Your task to perform on an android device: visit the assistant section in the google photos Image 0: 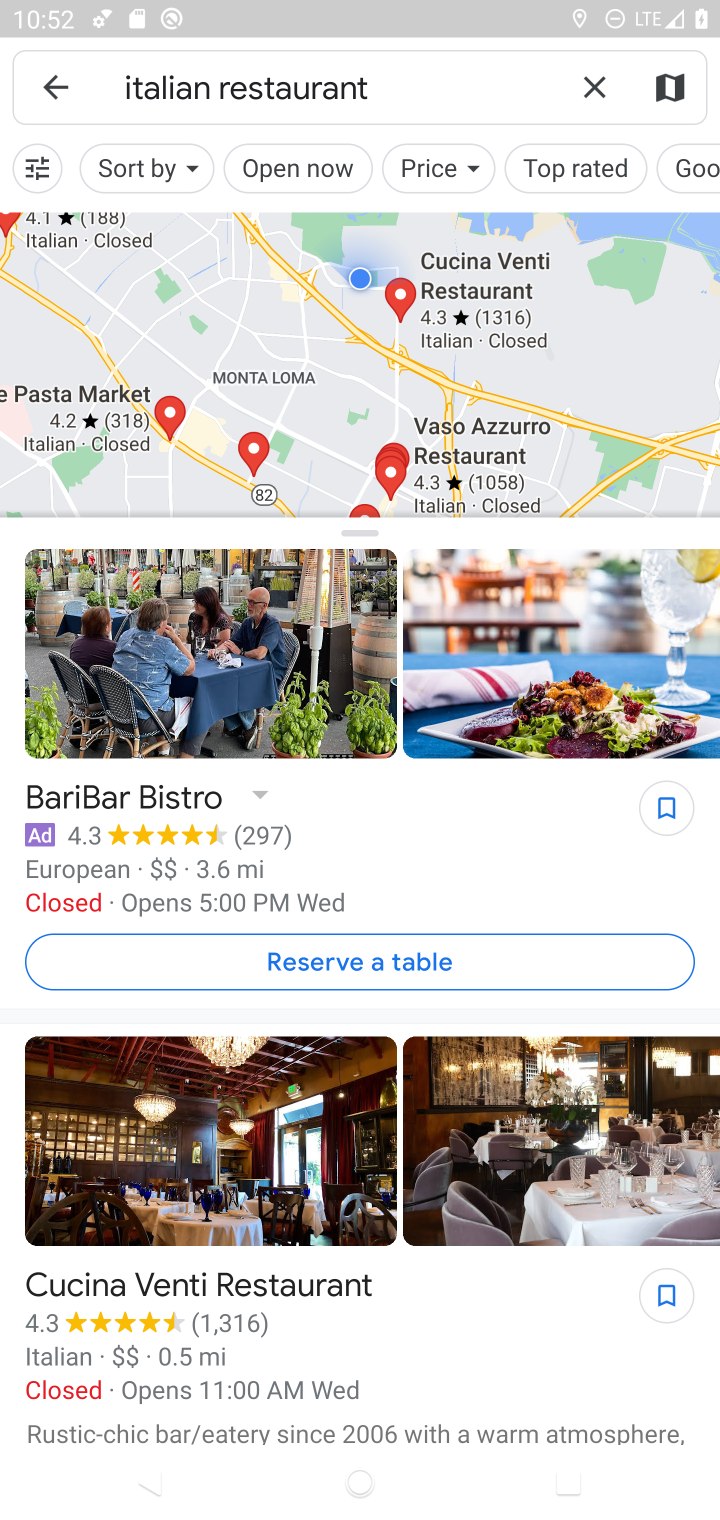
Step 0: press home button
Your task to perform on an android device: visit the assistant section in the google photos Image 1: 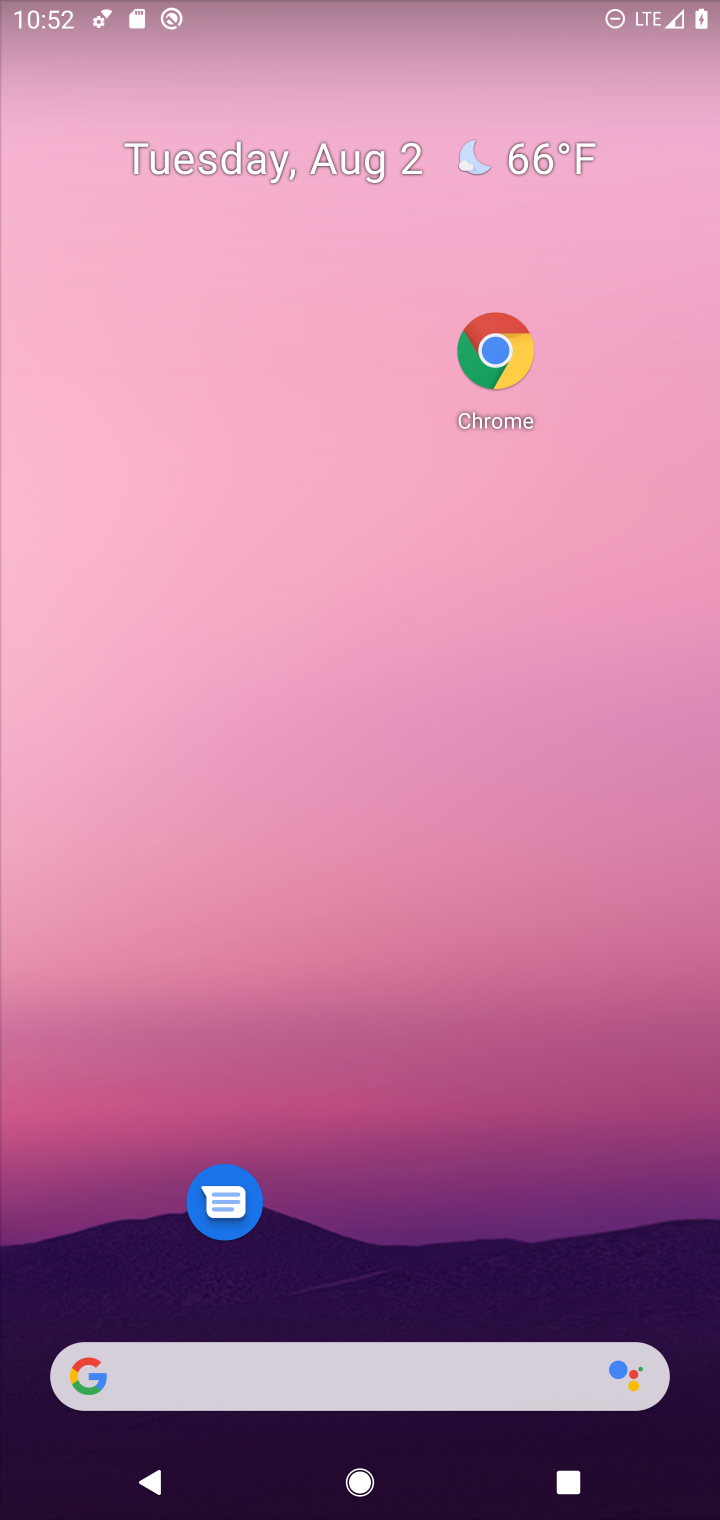
Step 1: drag from (455, 1252) to (296, 126)
Your task to perform on an android device: visit the assistant section in the google photos Image 2: 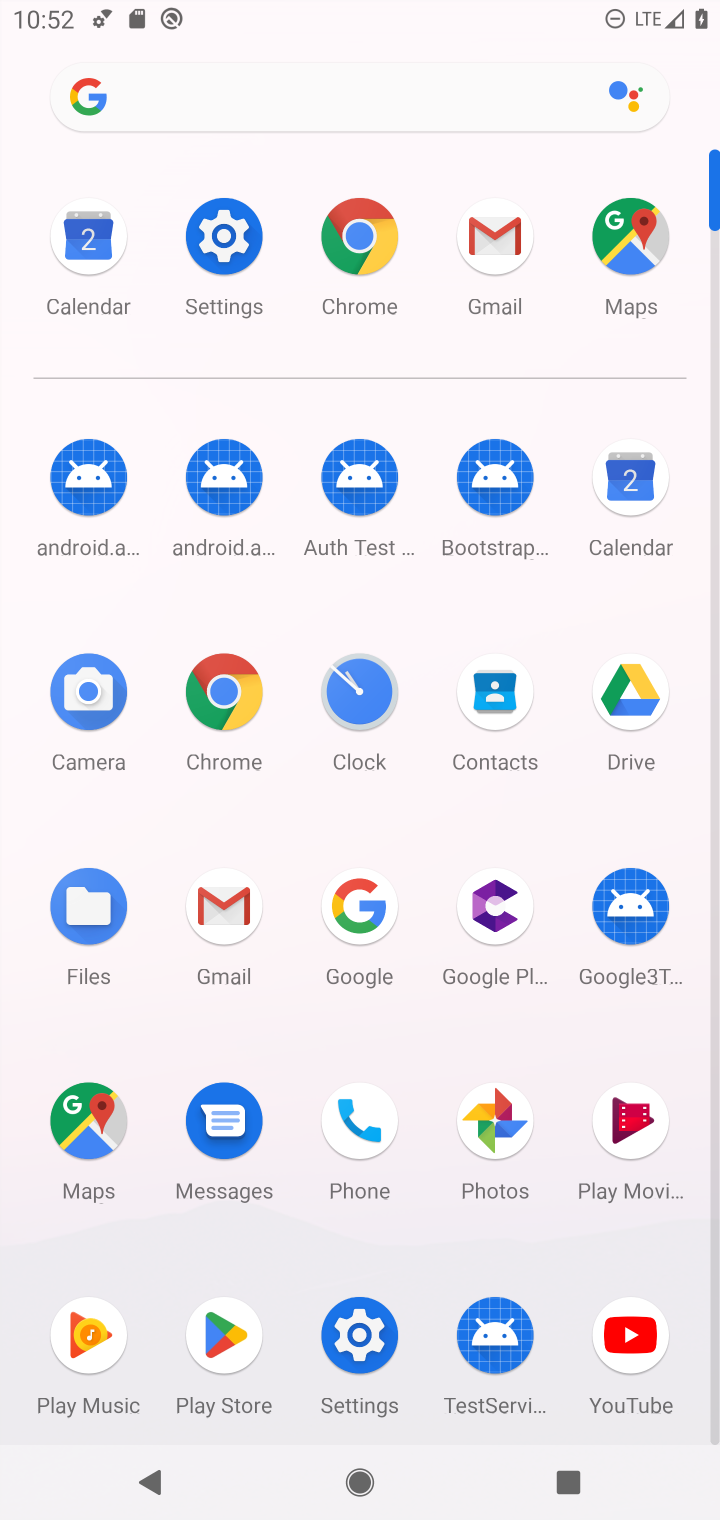
Step 2: click (508, 1126)
Your task to perform on an android device: visit the assistant section in the google photos Image 3: 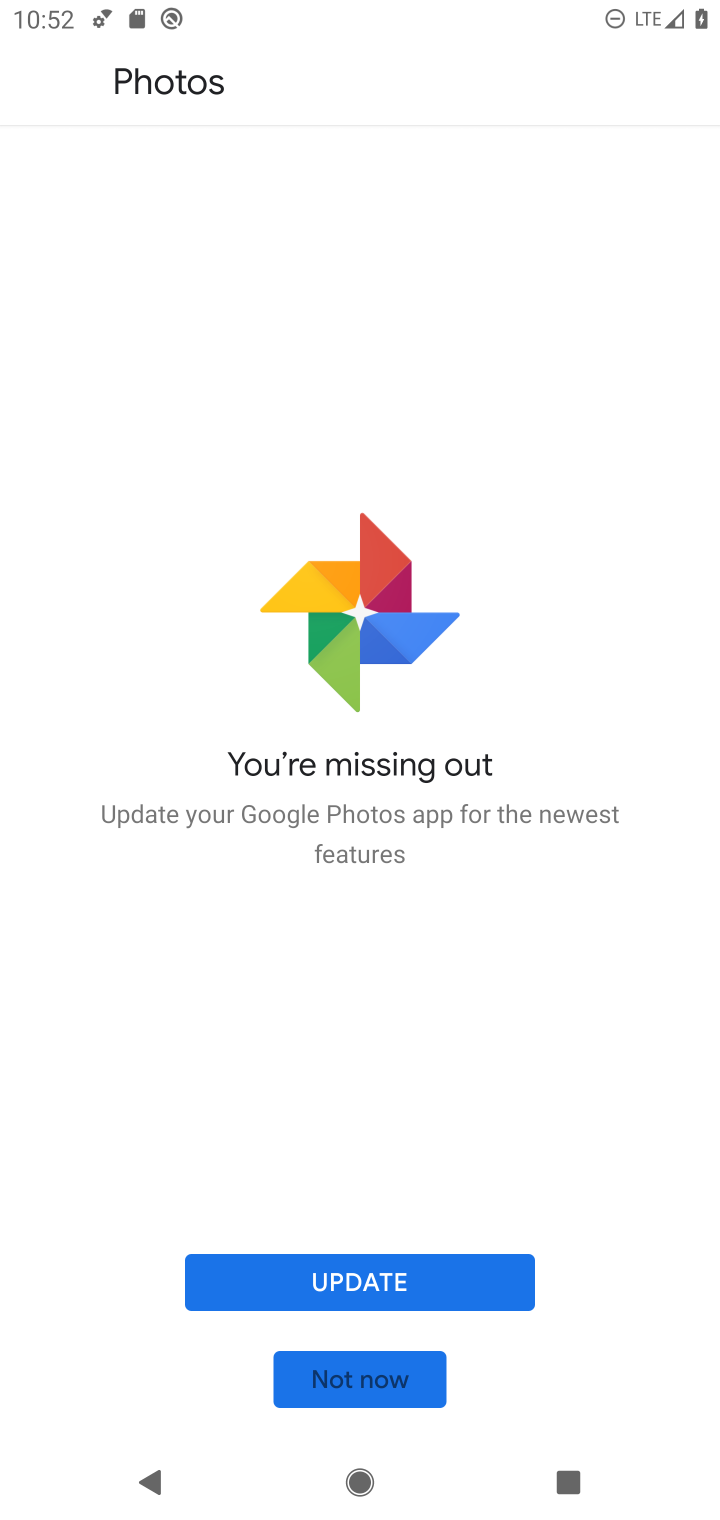
Step 3: click (368, 1381)
Your task to perform on an android device: visit the assistant section in the google photos Image 4: 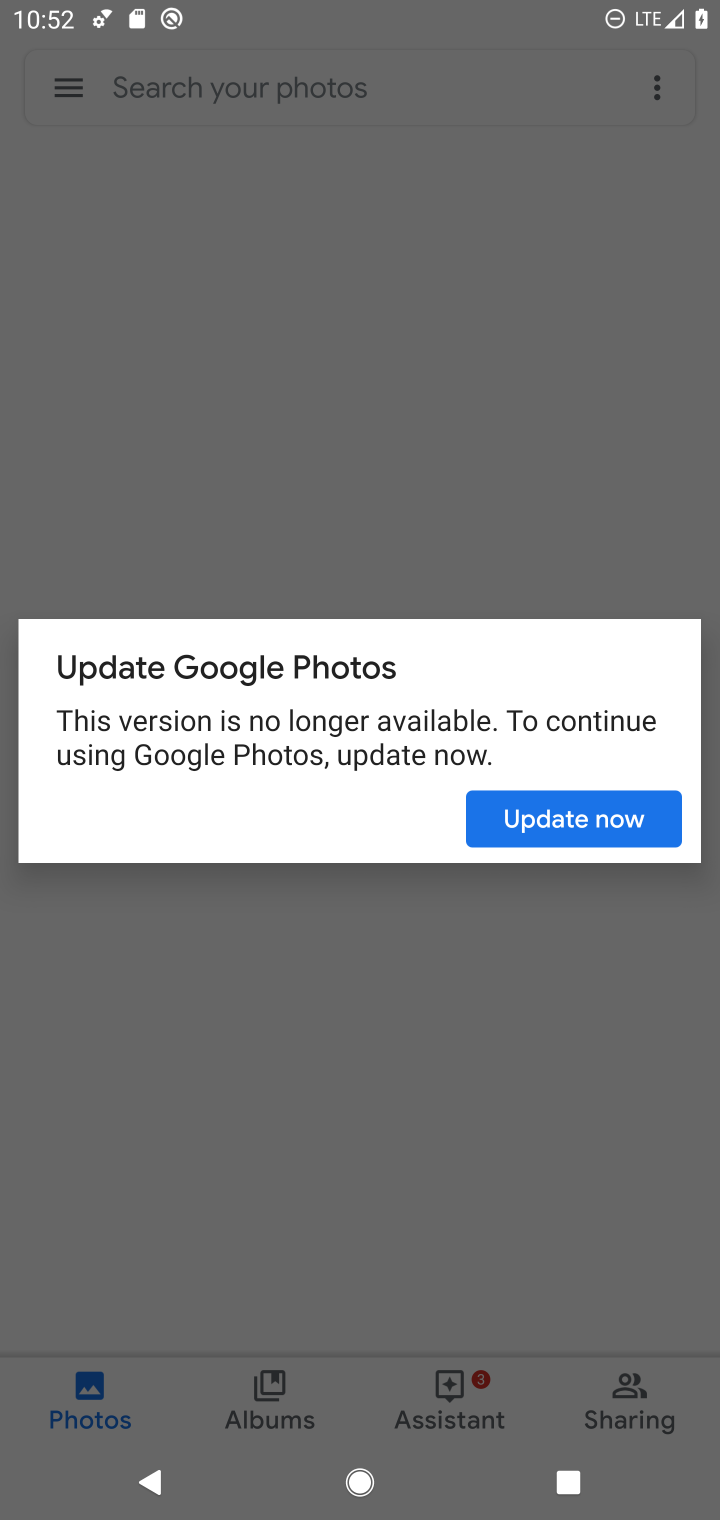
Step 4: click (557, 809)
Your task to perform on an android device: visit the assistant section in the google photos Image 5: 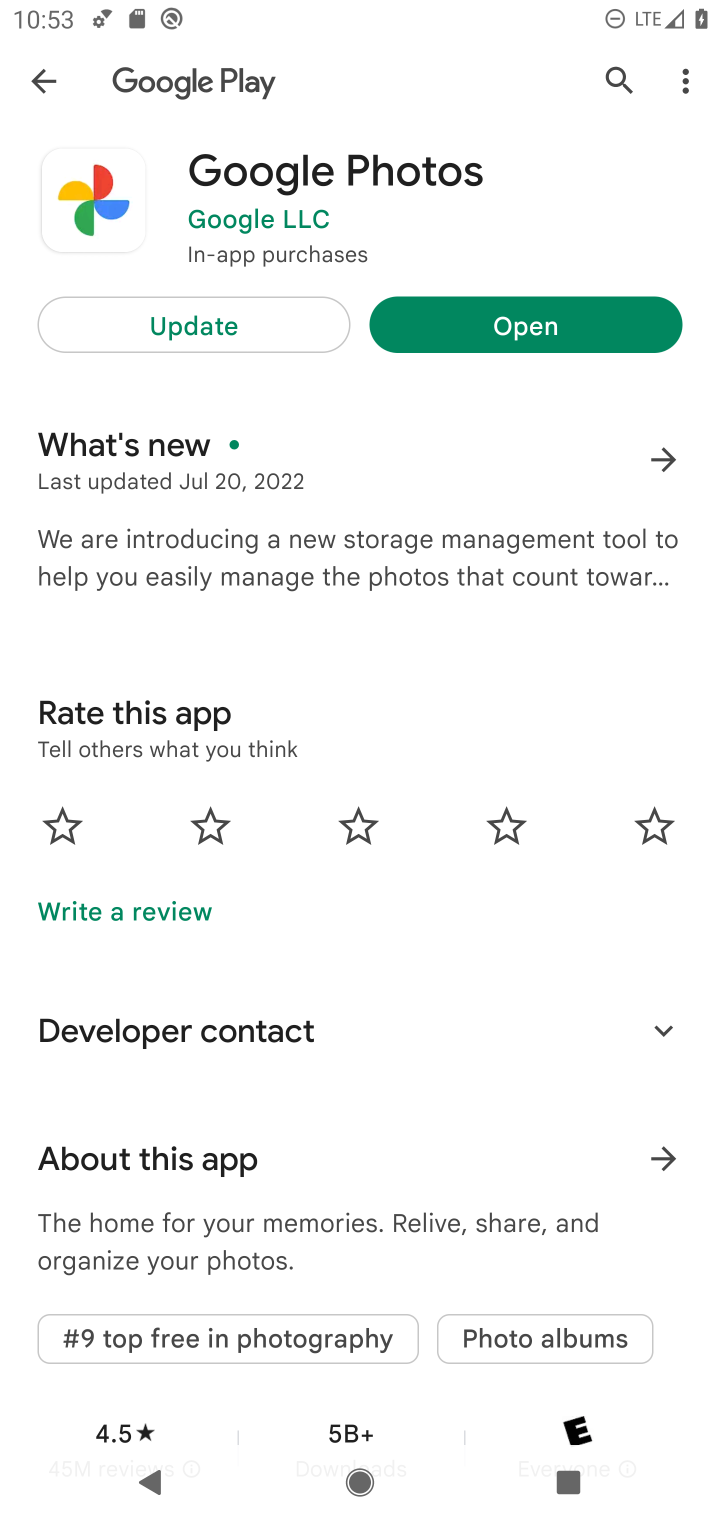
Step 5: click (450, 314)
Your task to perform on an android device: visit the assistant section in the google photos Image 6: 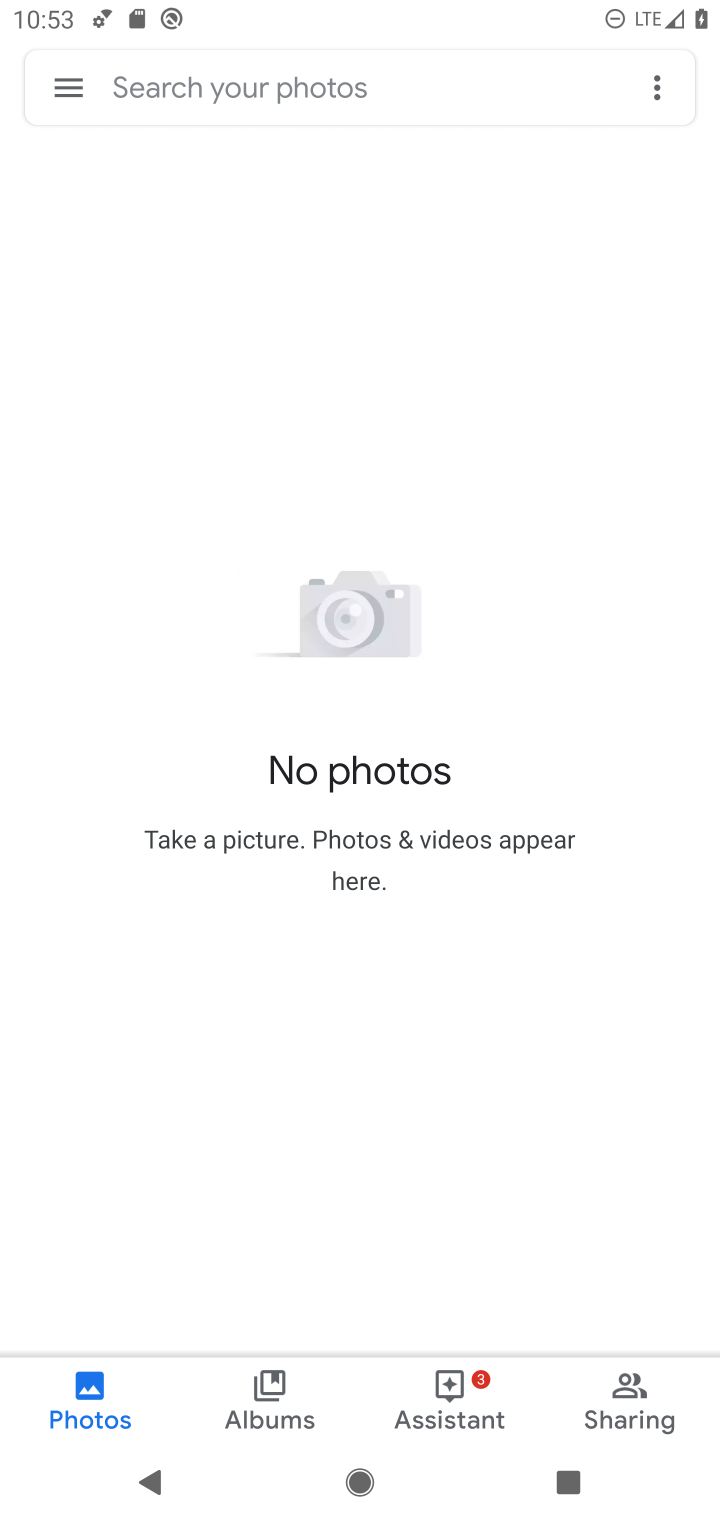
Step 6: click (432, 1403)
Your task to perform on an android device: visit the assistant section in the google photos Image 7: 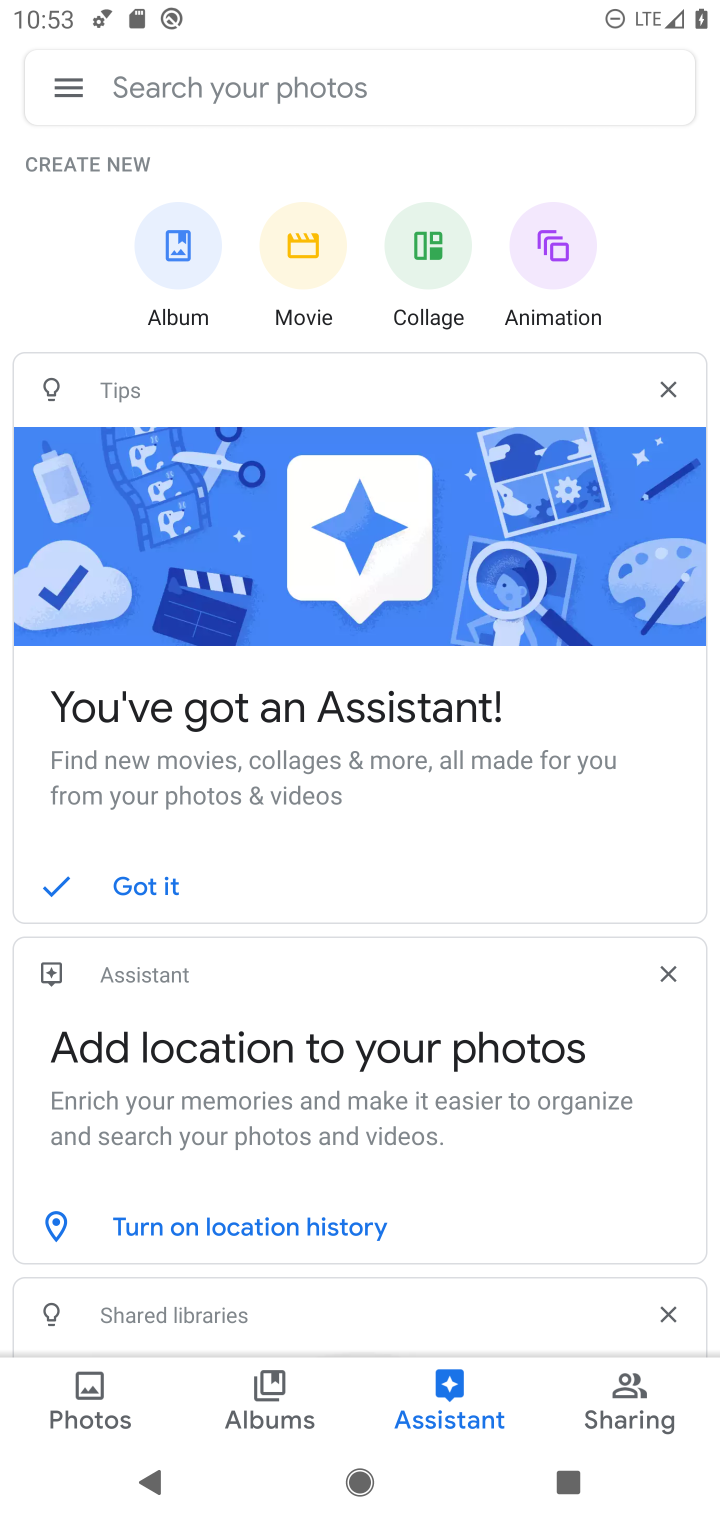
Step 7: task complete